Your task to perform on an android device: Open the map Image 0: 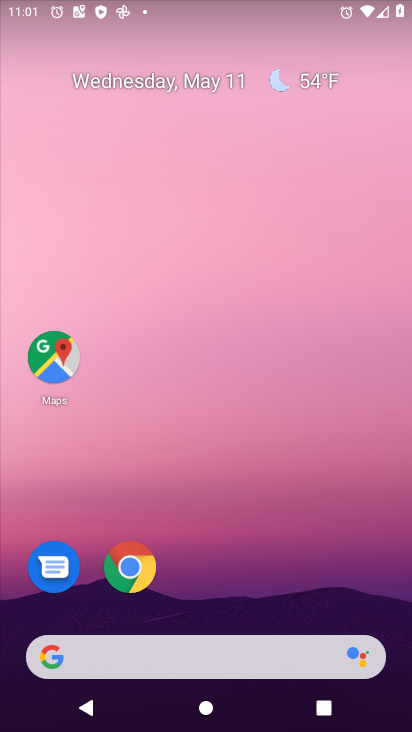
Step 0: click (63, 361)
Your task to perform on an android device: Open the map Image 1: 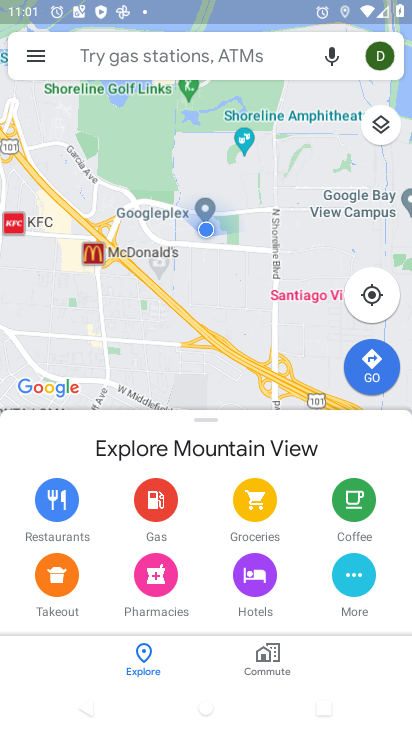
Step 1: task complete